Your task to perform on an android device: turn off javascript in the chrome app Image 0: 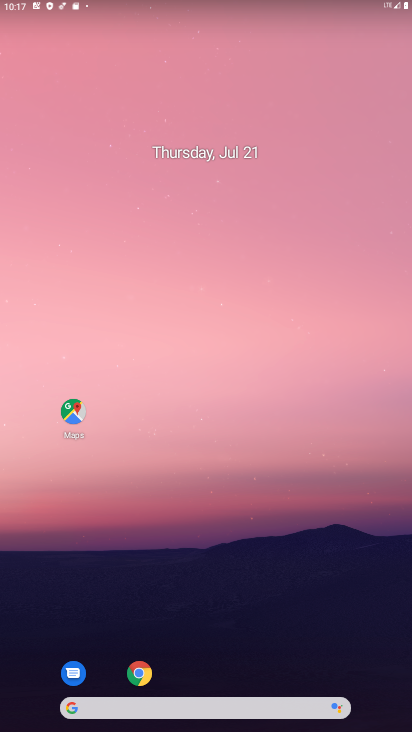
Step 0: click (153, 672)
Your task to perform on an android device: turn off javascript in the chrome app Image 1: 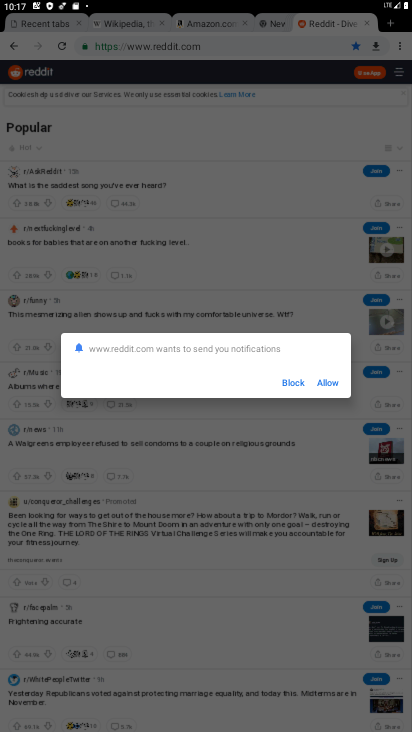
Step 1: click (405, 41)
Your task to perform on an android device: turn off javascript in the chrome app Image 2: 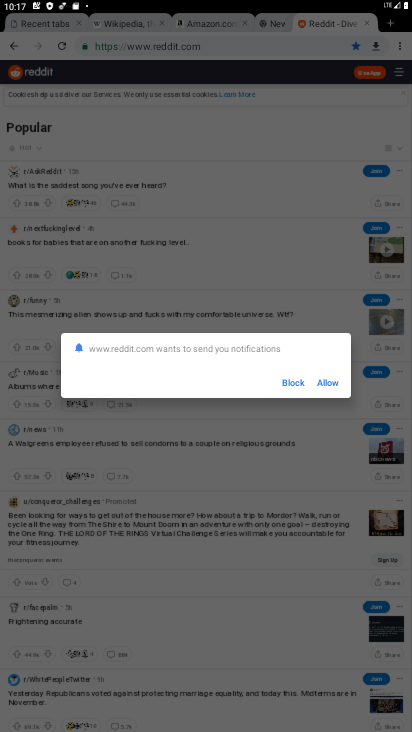
Step 2: click (400, 53)
Your task to perform on an android device: turn off javascript in the chrome app Image 3: 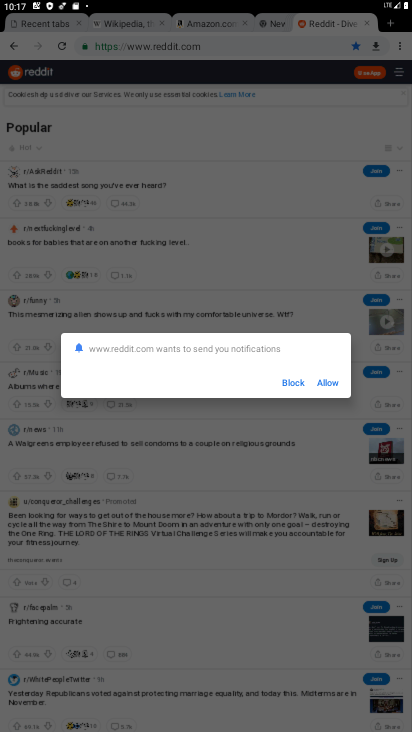
Step 3: click (320, 387)
Your task to perform on an android device: turn off javascript in the chrome app Image 4: 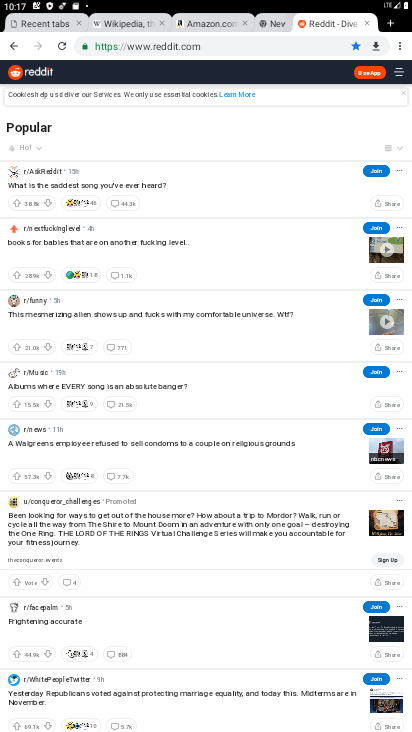
Step 4: click (400, 50)
Your task to perform on an android device: turn off javascript in the chrome app Image 5: 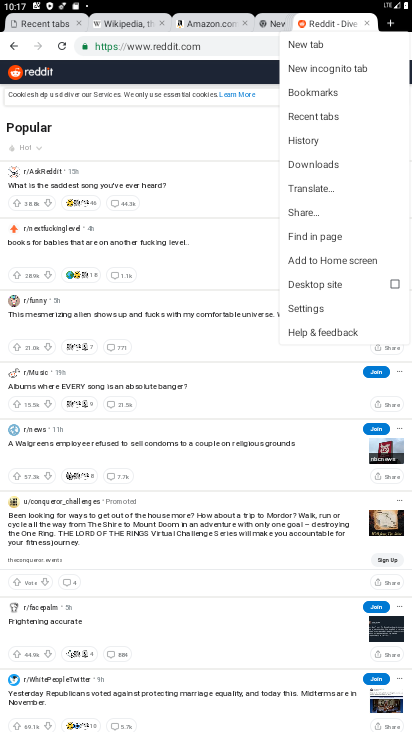
Step 5: click (333, 311)
Your task to perform on an android device: turn off javascript in the chrome app Image 6: 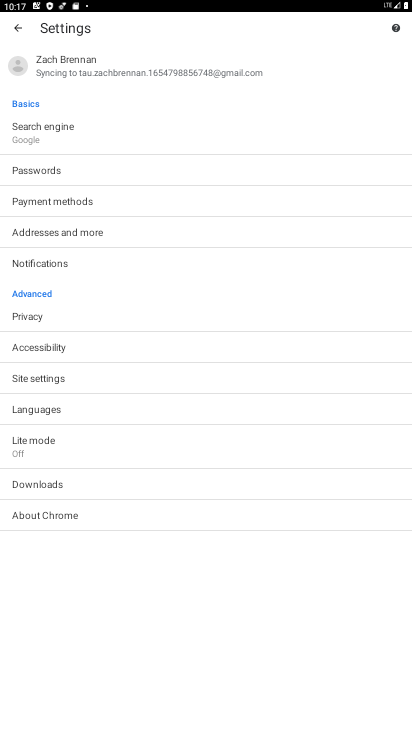
Step 6: click (86, 382)
Your task to perform on an android device: turn off javascript in the chrome app Image 7: 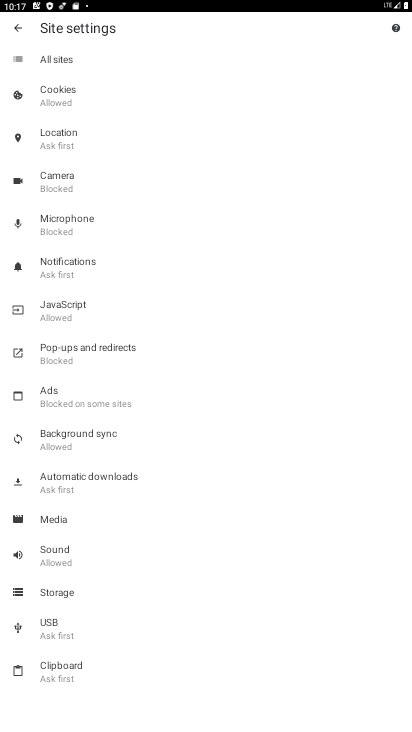
Step 7: click (85, 314)
Your task to perform on an android device: turn off javascript in the chrome app Image 8: 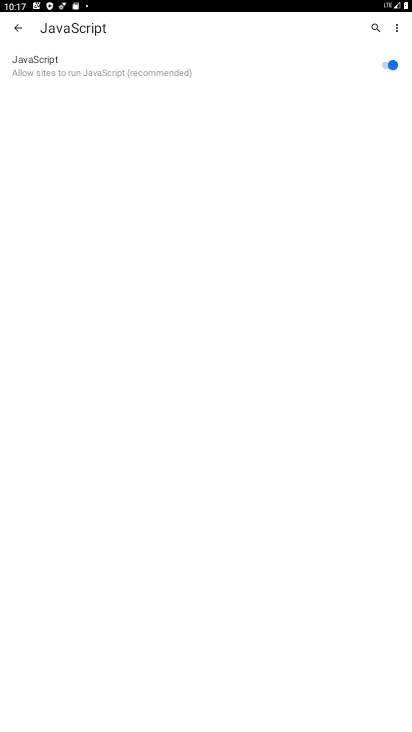
Step 8: click (386, 65)
Your task to perform on an android device: turn off javascript in the chrome app Image 9: 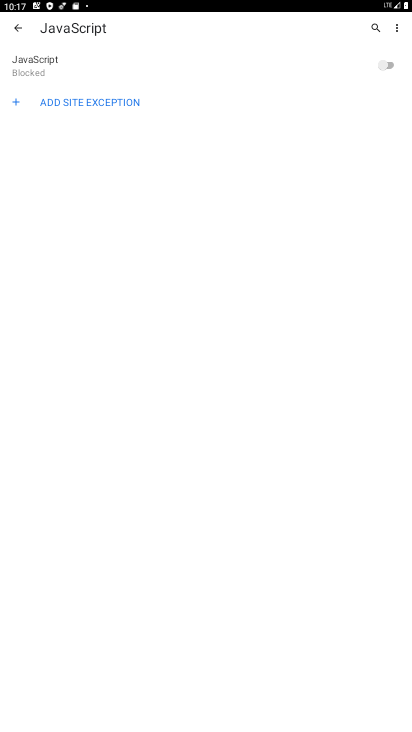
Step 9: task complete